Your task to perform on an android device: What's the weather today? Image 0: 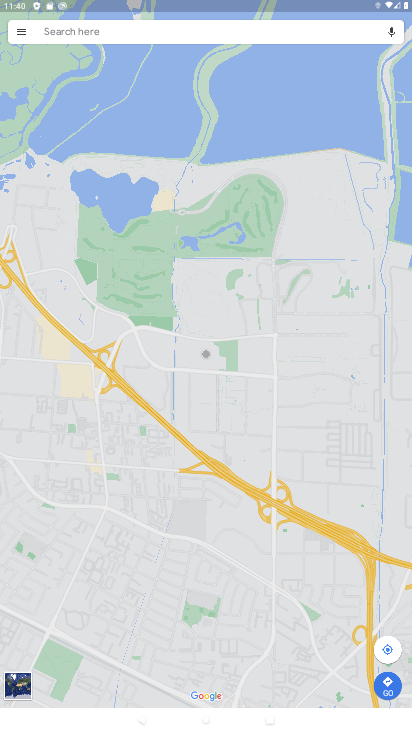
Step 0: press home button
Your task to perform on an android device: What's the weather today? Image 1: 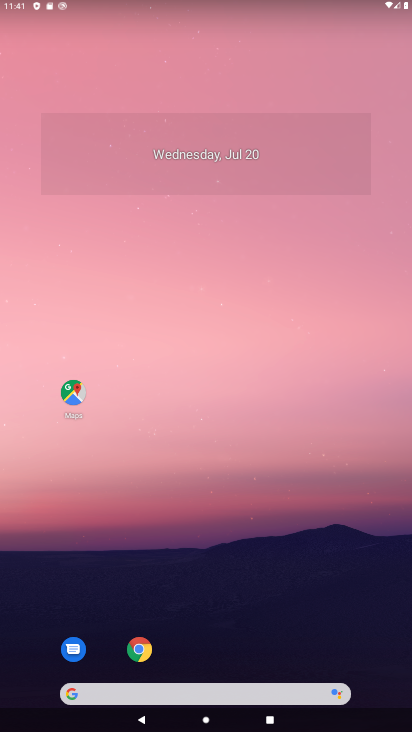
Step 1: click (235, 684)
Your task to perform on an android device: What's the weather today? Image 2: 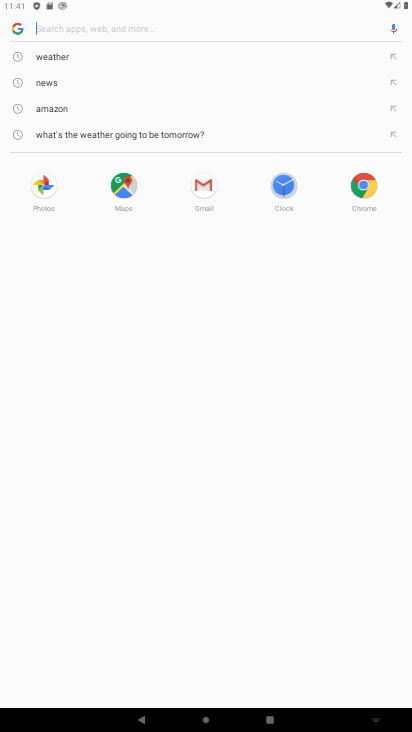
Step 2: click (81, 65)
Your task to perform on an android device: What's the weather today? Image 3: 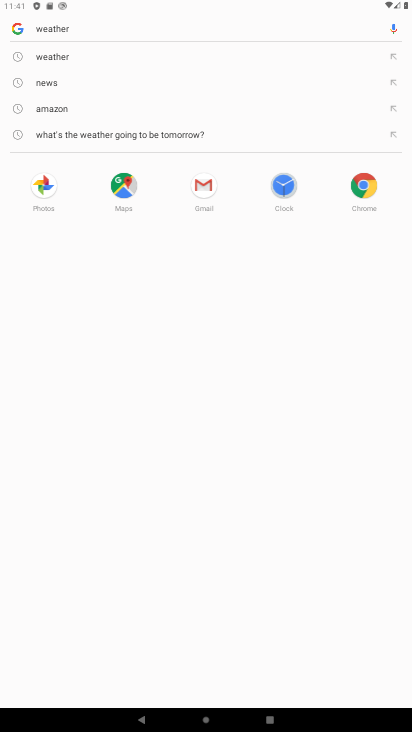
Step 3: task complete